Your task to perform on an android device: Open the stopwatch Image 0: 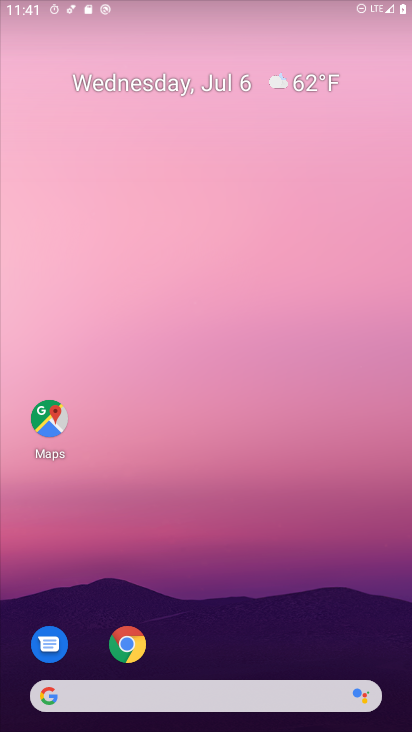
Step 0: press home button
Your task to perform on an android device: Open the stopwatch Image 1: 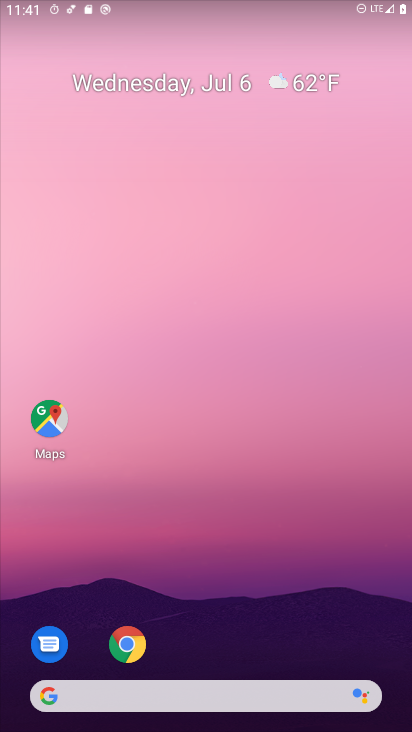
Step 1: drag from (232, 640) to (131, 195)
Your task to perform on an android device: Open the stopwatch Image 2: 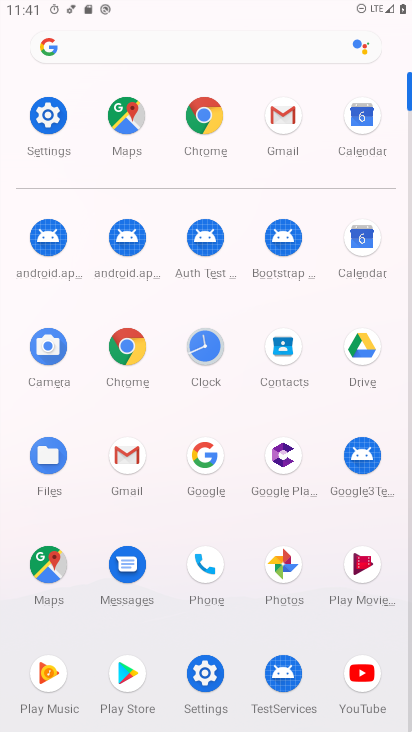
Step 2: click (198, 355)
Your task to perform on an android device: Open the stopwatch Image 3: 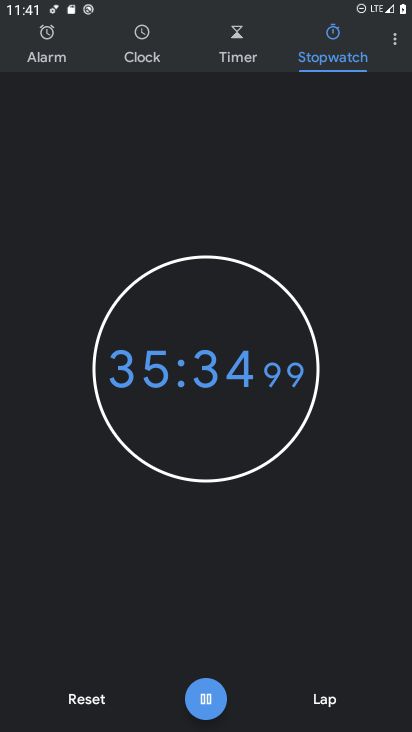
Step 3: task complete